Your task to perform on an android device: empty trash in the gmail app Image 0: 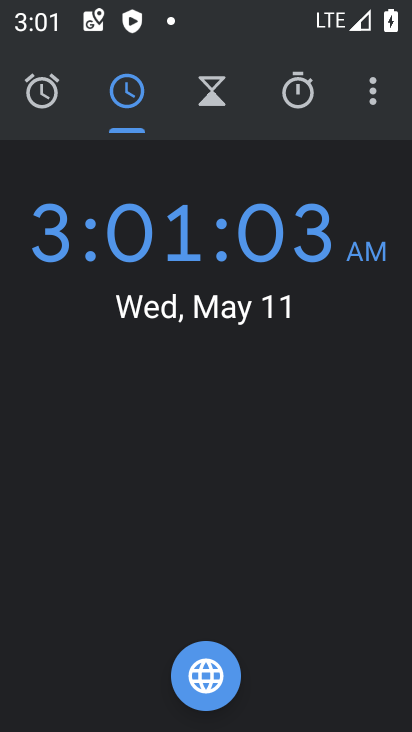
Step 0: press home button
Your task to perform on an android device: empty trash in the gmail app Image 1: 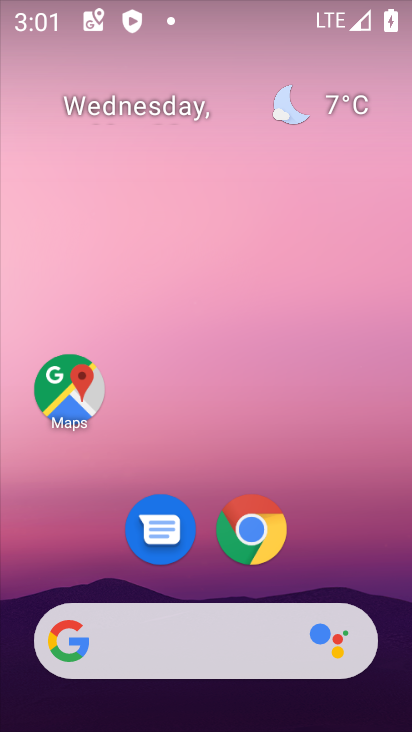
Step 1: drag from (391, 536) to (318, 87)
Your task to perform on an android device: empty trash in the gmail app Image 2: 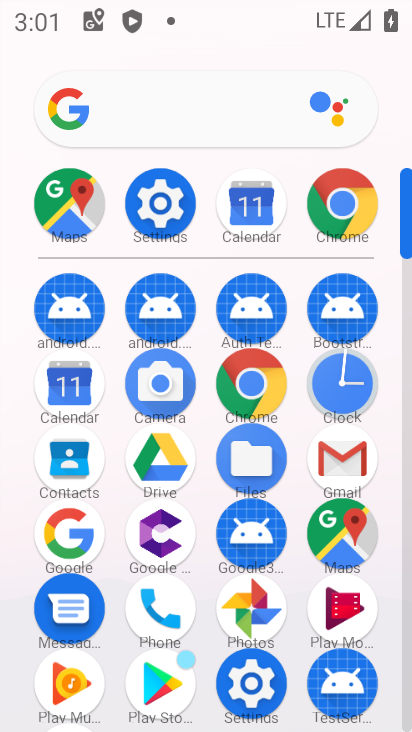
Step 2: click (342, 462)
Your task to perform on an android device: empty trash in the gmail app Image 3: 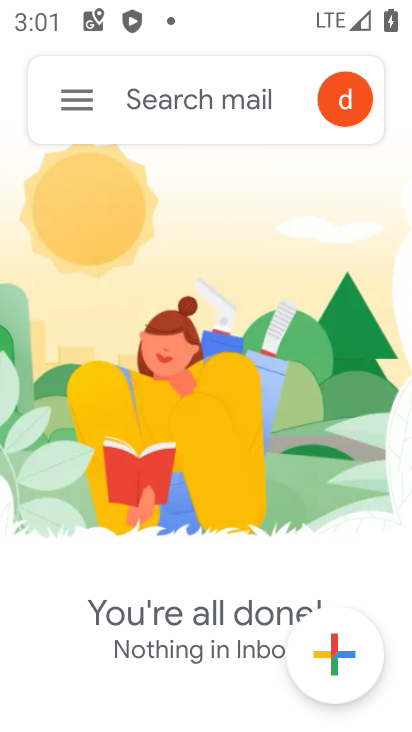
Step 3: click (73, 112)
Your task to perform on an android device: empty trash in the gmail app Image 4: 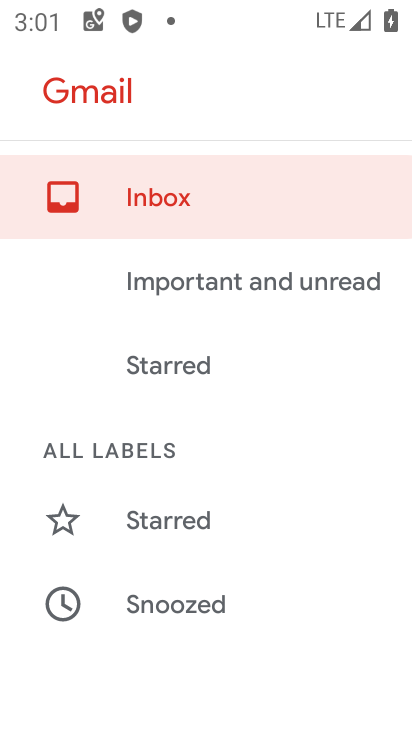
Step 4: drag from (232, 494) to (234, 149)
Your task to perform on an android device: empty trash in the gmail app Image 5: 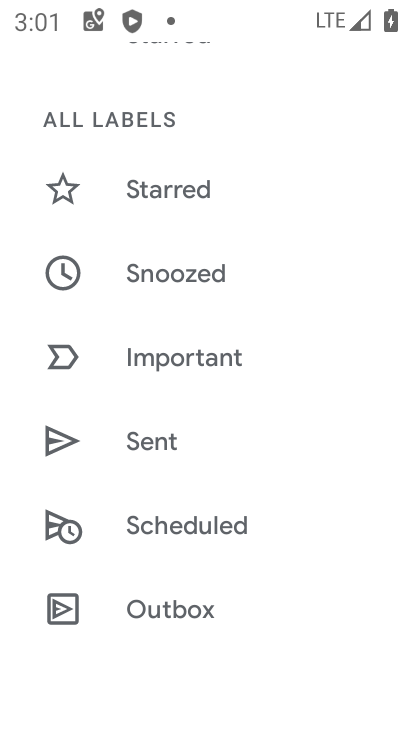
Step 5: drag from (223, 524) to (214, 76)
Your task to perform on an android device: empty trash in the gmail app Image 6: 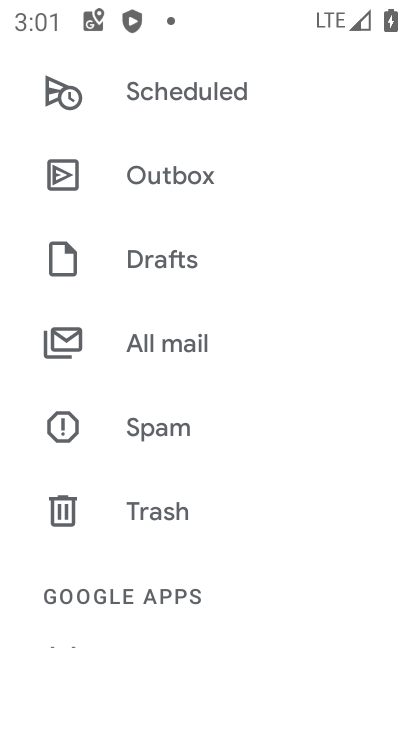
Step 6: click (163, 531)
Your task to perform on an android device: empty trash in the gmail app Image 7: 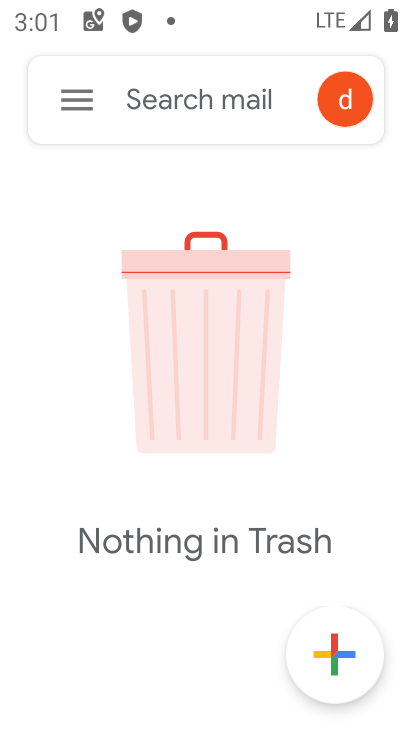
Step 7: task complete